Your task to perform on an android device: Open Yahoo.com Image 0: 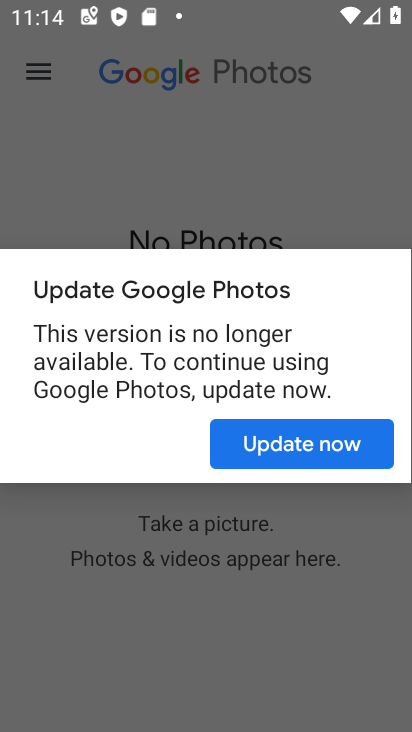
Step 0: press home button
Your task to perform on an android device: Open Yahoo.com Image 1: 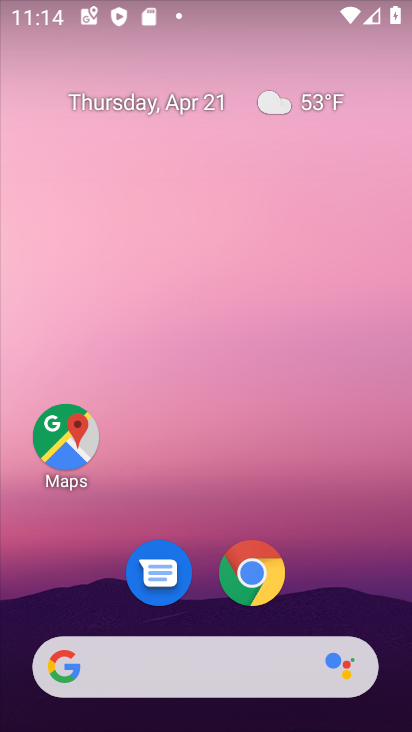
Step 1: drag from (339, 598) to (397, 127)
Your task to perform on an android device: Open Yahoo.com Image 2: 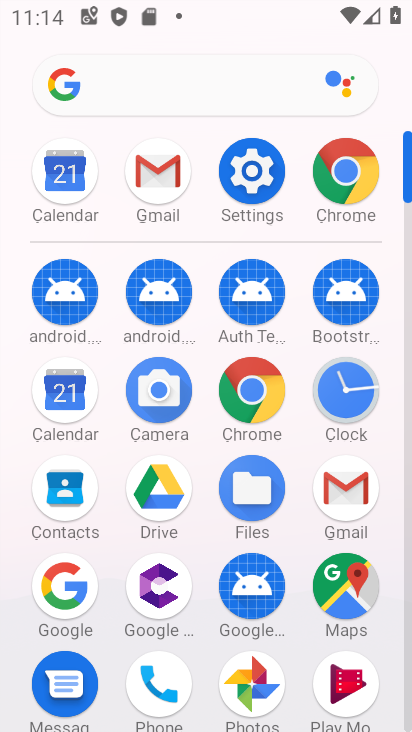
Step 2: click (261, 395)
Your task to perform on an android device: Open Yahoo.com Image 3: 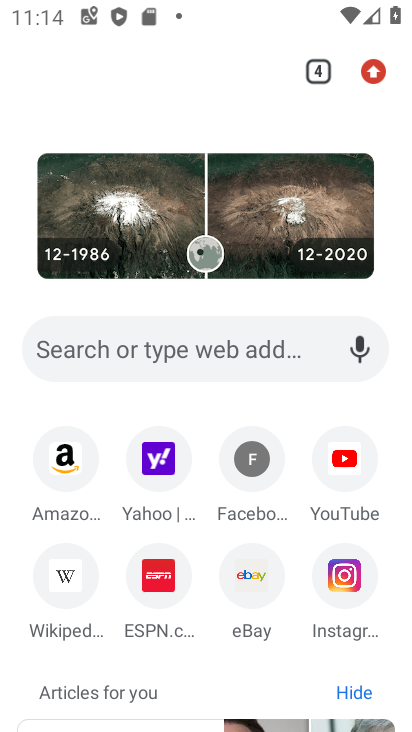
Step 3: click (196, 347)
Your task to perform on an android device: Open Yahoo.com Image 4: 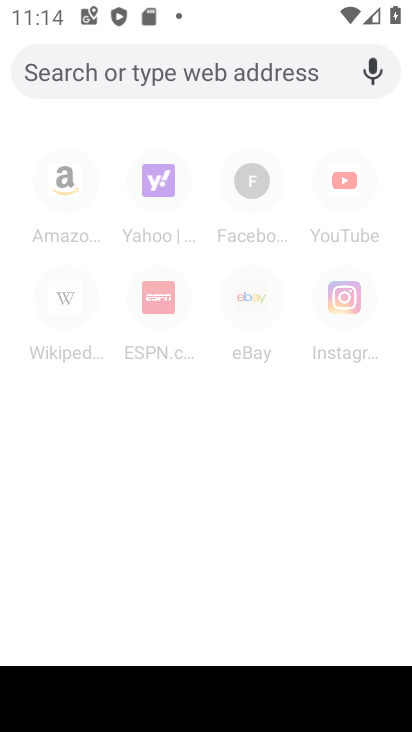
Step 4: type " Yahoo.com"
Your task to perform on an android device: Open Yahoo.com Image 5: 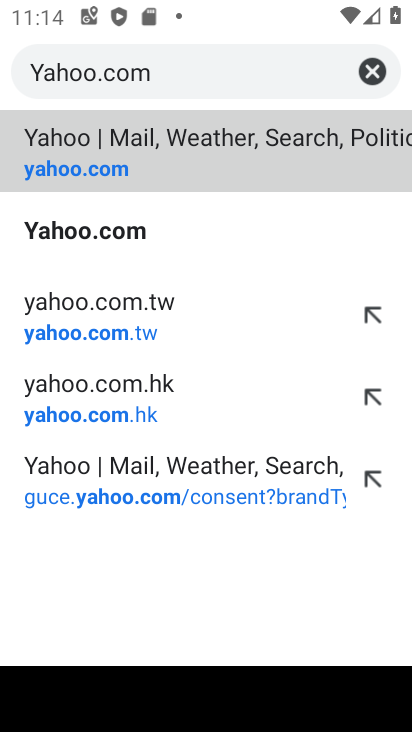
Step 5: click (115, 161)
Your task to perform on an android device: Open Yahoo.com Image 6: 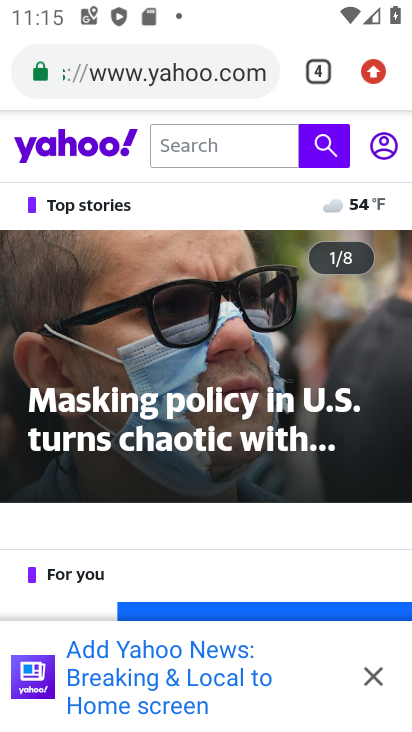
Step 6: task complete